Your task to perform on an android device: turn off translation in the chrome app Image 0: 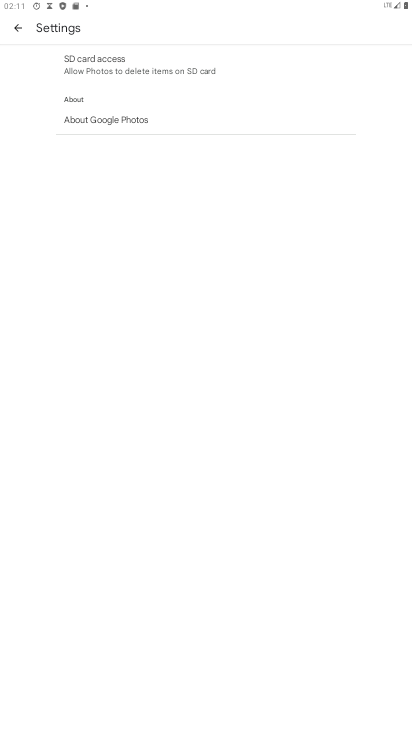
Step 0: press home button
Your task to perform on an android device: turn off translation in the chrome app Image 1: 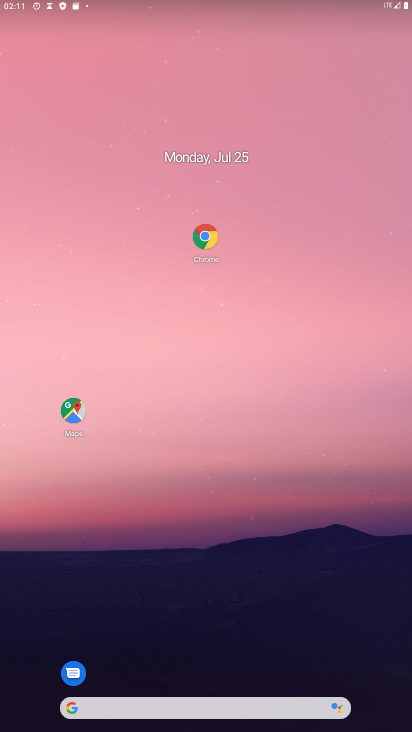
Step 1: drag from (332, 171) to (338, 9)
Your task to perform on an android device: turn off translation in the chrome app Image 2: 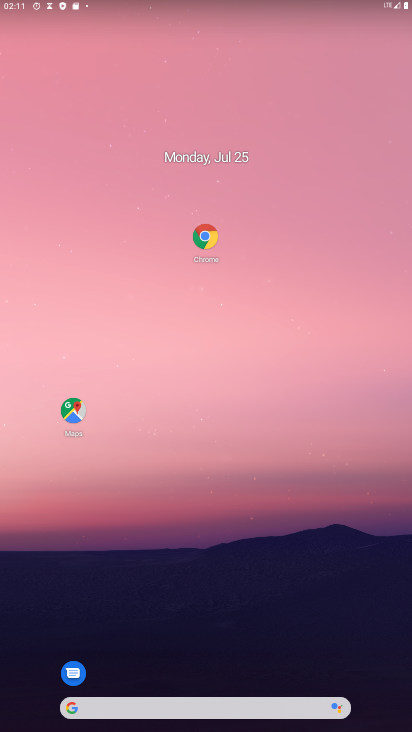
Step 2: drag from (237, 679) to (191, 10)
Your task to perform on an android device: turn off translation in the chrome app Image 3: 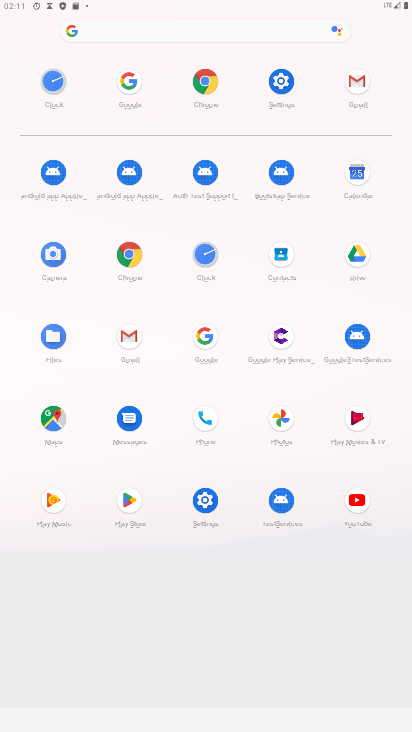
Step 3: click (128, 262)
Your task to perform on an android device: turn off translation in the chrome app Image 4: 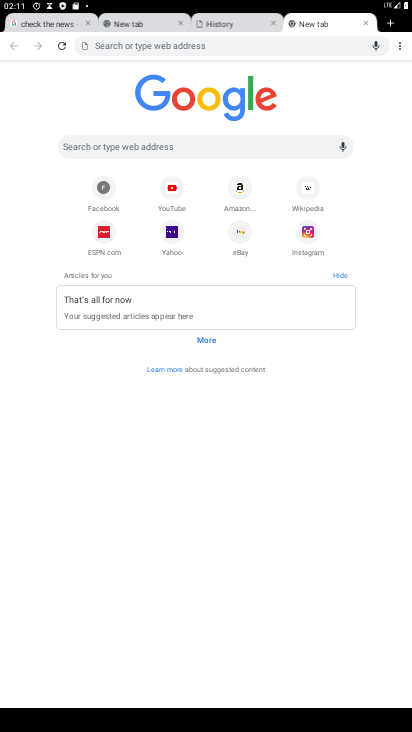
Step 4: drag from (402, 47) to (320, 213)
Your task to perform on an android device: turn off translation in the chrome app Image 5: 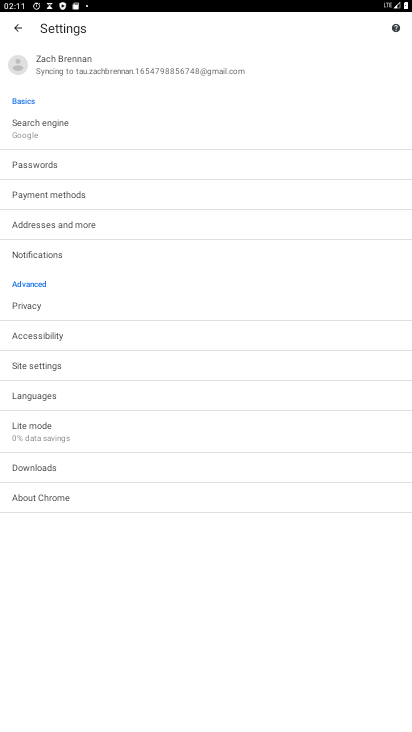
Step 5: click (54, 401)
Your task to perform on an android device: turn off translation in the chrome app Image 6: 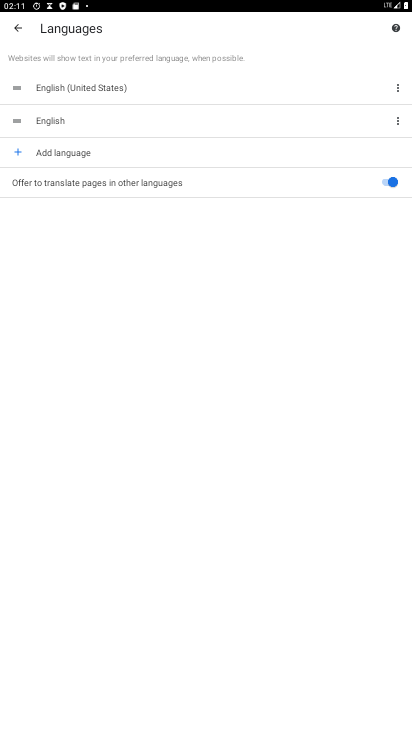
Step 6: click (390, 183)
Your task to perform on an android device: turn off translation in the chrome app Image 7: 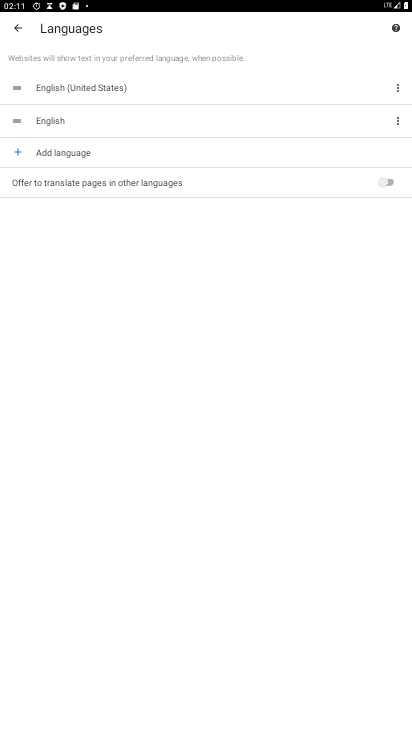
Step 7: task complete